Your task to perform on an android device: Go to display settings Image 0: 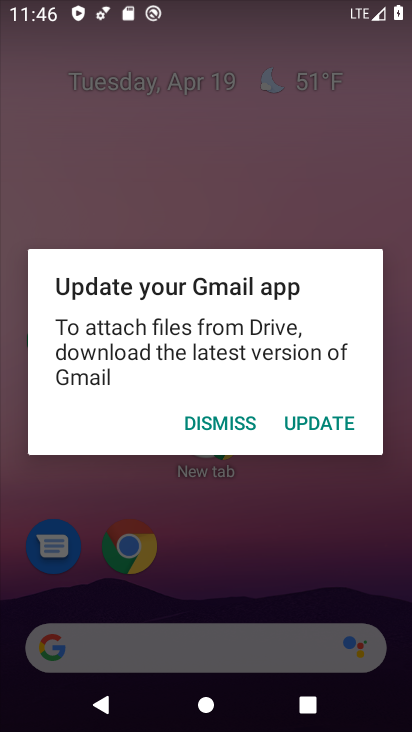
Step 0: drag from (171, 720) to (140, 155)
Your task to perform on an android device: Go to display settings Image 1: 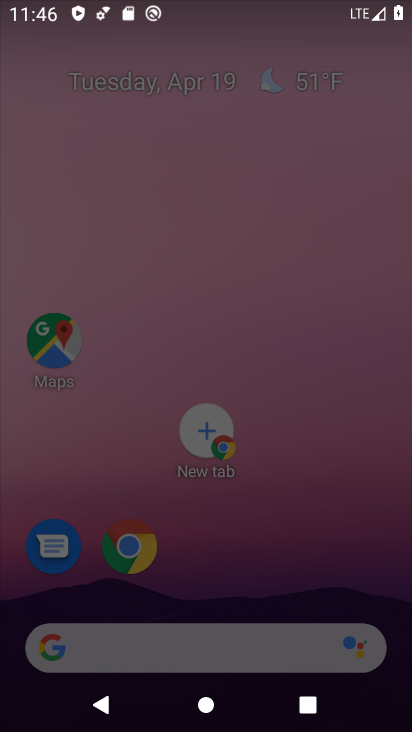
Step 1: drag from (236, 18) to (255, 661)
Your task to perform on an android device: Go to display settings Image 2: 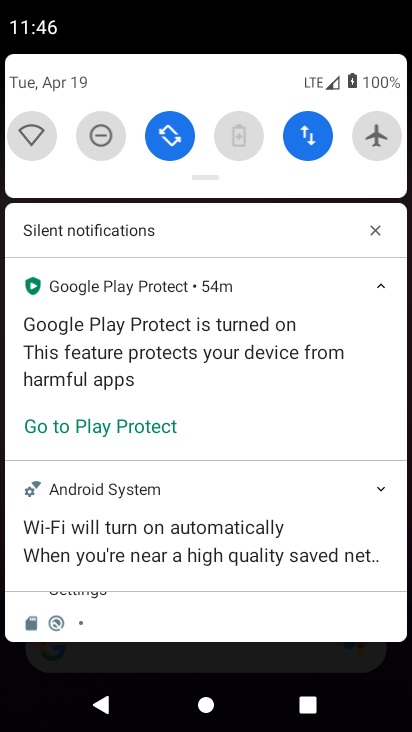
Step 2: drag from (178, 95) to (161, 724)
Your task to perform on an android device: Go to display settings Image 3: 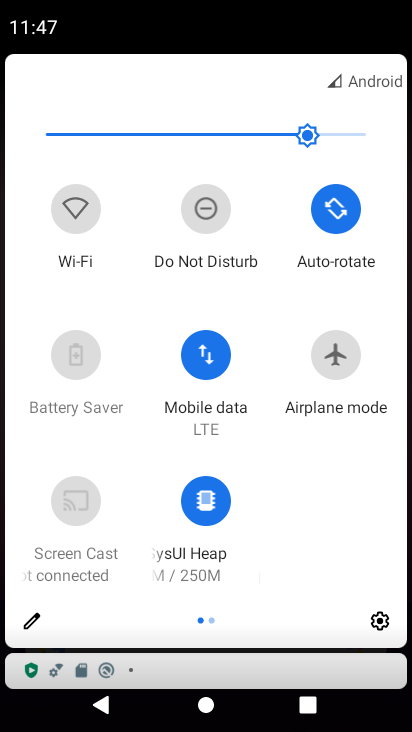
Step 3: click (380, 614)
Your task to perform on an android device: Go to display settings Image 4: 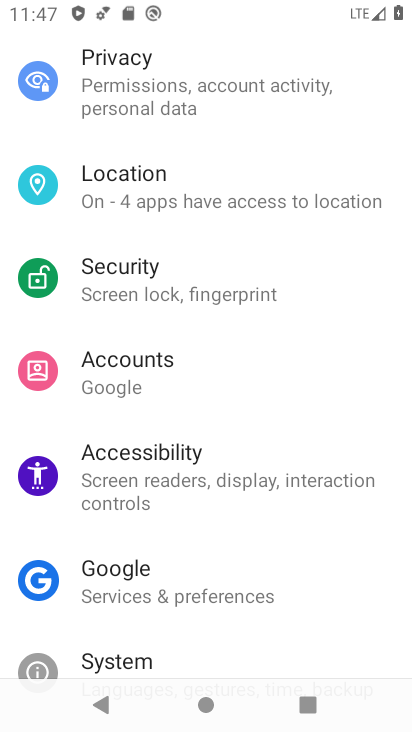
Step 4: drag from (121, 507) to (129, 83)
Your task to perform on an android device: Go to display settings Image 5: 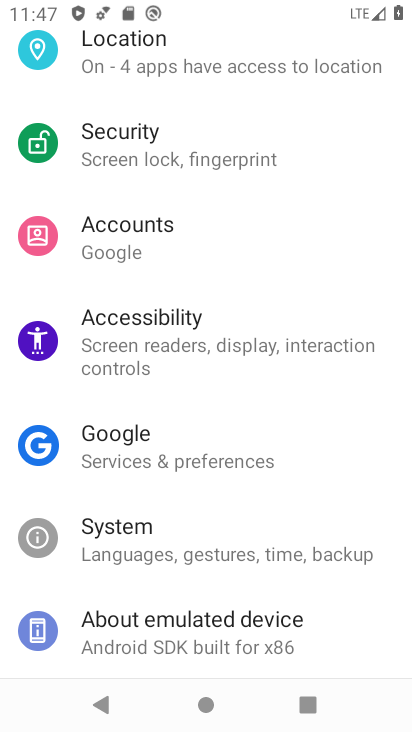
Step 5: drag from (246, 204) to (232, 662)
Your task to perform on an android device: Go to display settings Image 6: 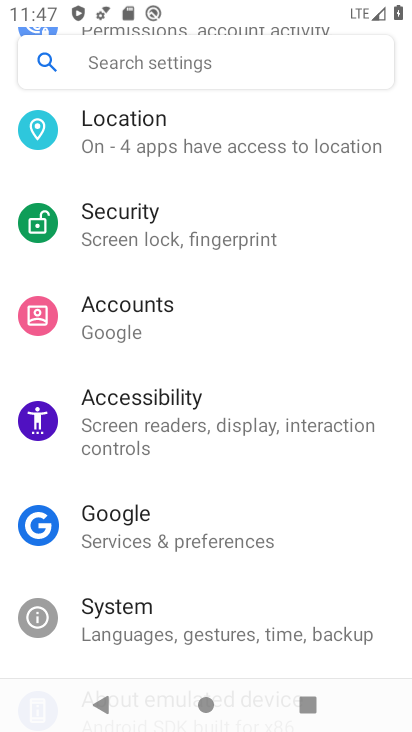
Step 6: drag from (171, 127) to (230, 533)
Your task to perform on an android device: Go to display settings Image 7: 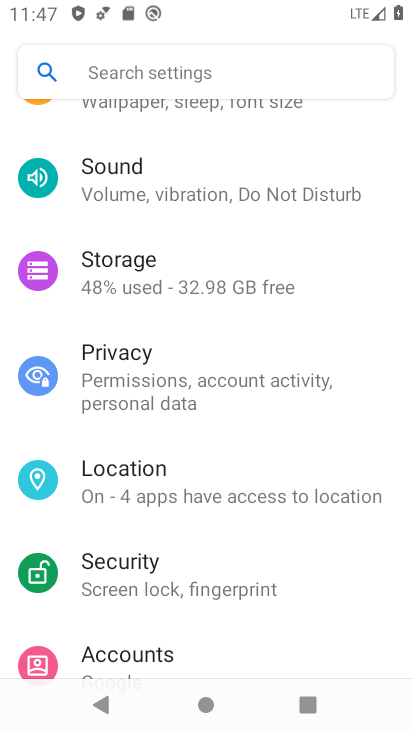
Step 7: drag from (170, 213) to (204, 593)
Your task to perform on an android device: Go to display settings Image 8: 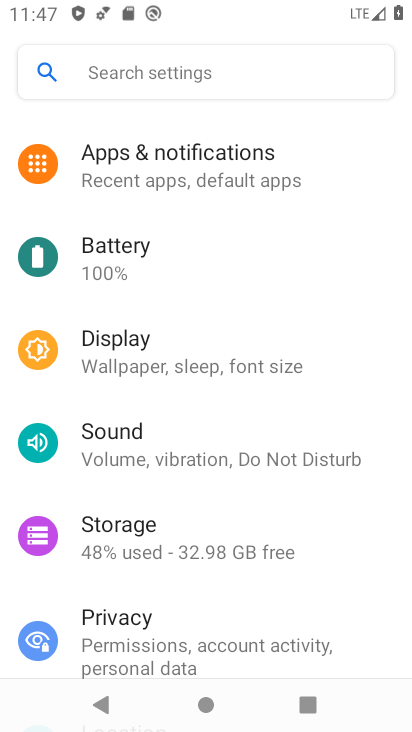
Step 8: click (178, 338)
Your task to perform on an android device: Go to display settings Image 9: 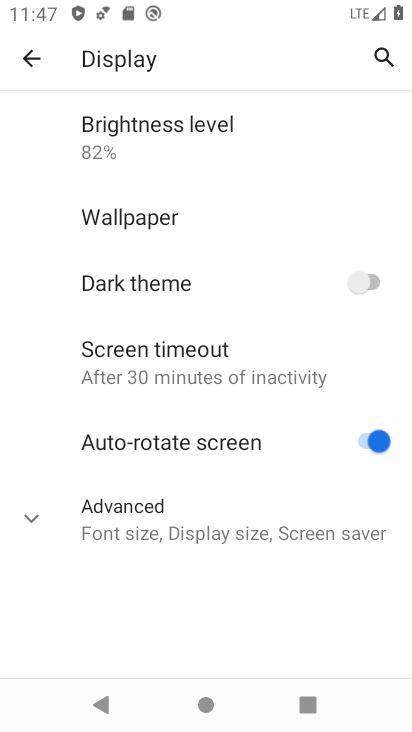
Step 9: task complete